Your task to perform on an android device: turn off location Image 0: 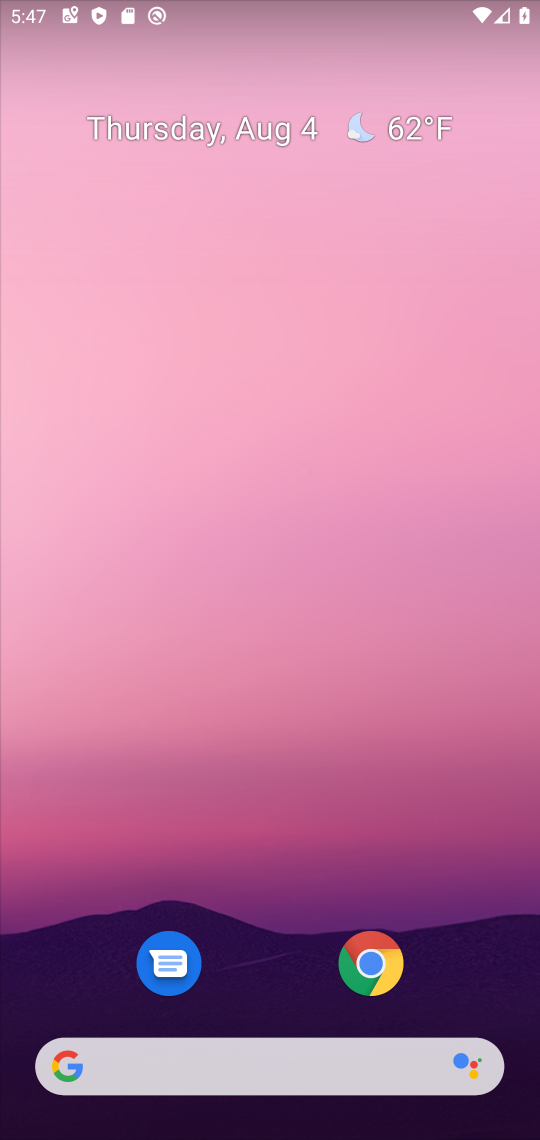
Step 0: drag from (264, 870) to (437, 52)
Your task to perform on an android device: turn off location Image 1: 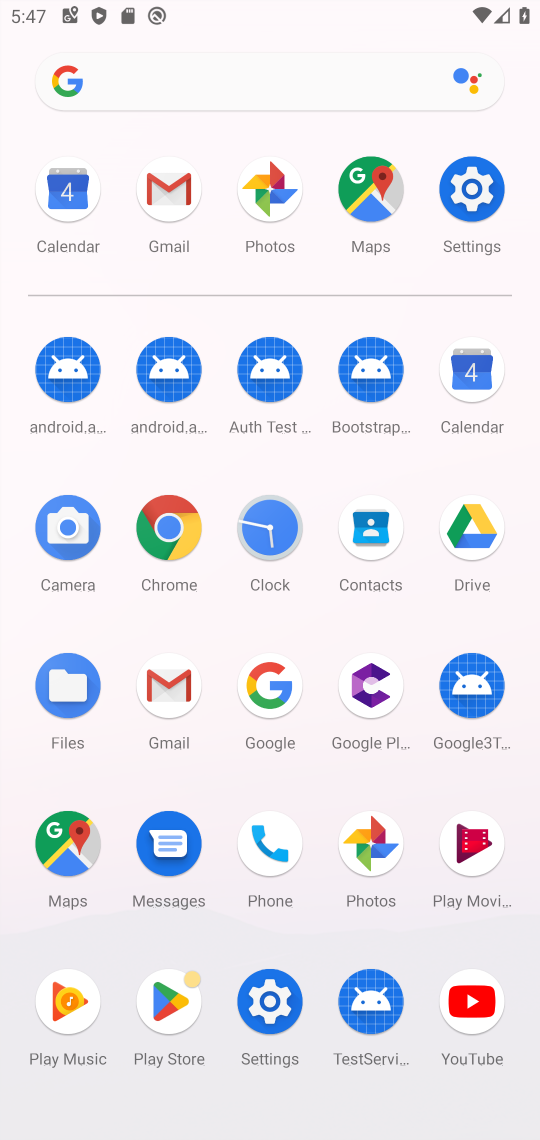
Step 1: click (471, 192)
Your task to perform on an android device: turn off location Image 2: 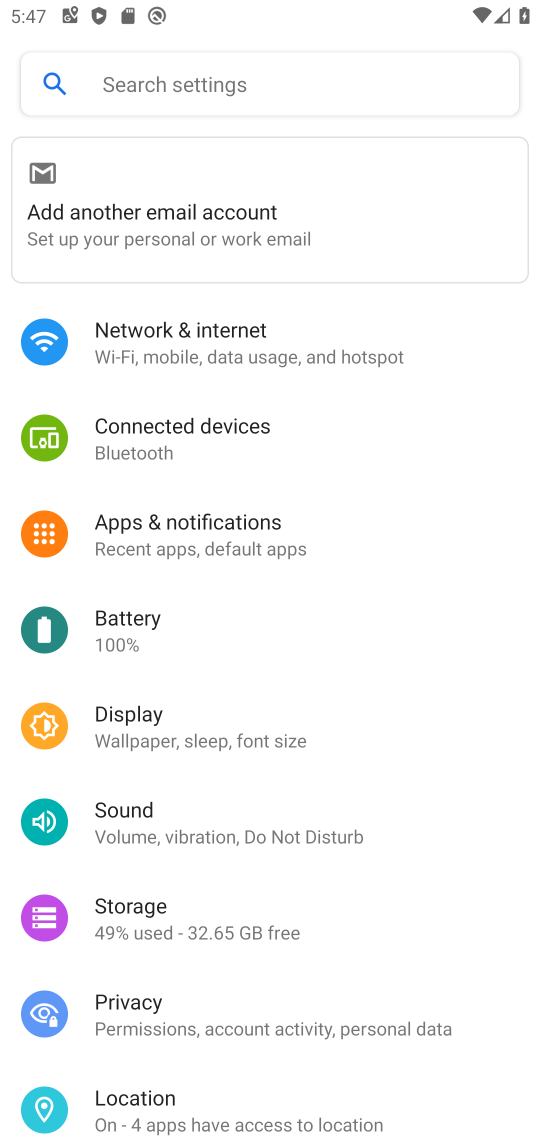
Step 2: click (131, 1086)
Your task to perform on an android device: turn off location Image 3: 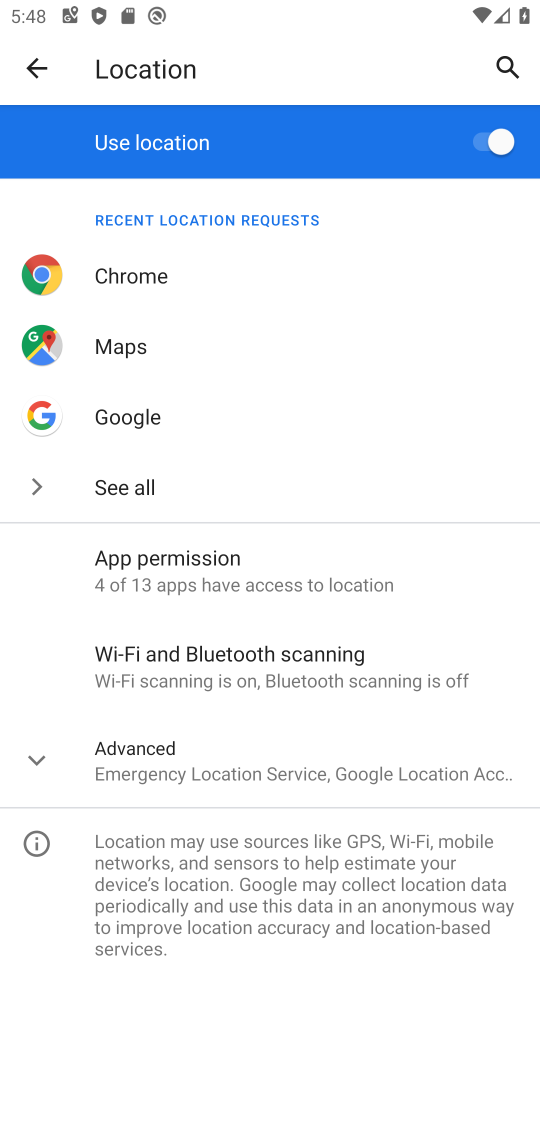
Step 3: task complete